Your task to perform on an android device: change the clock display to digital Image 0: 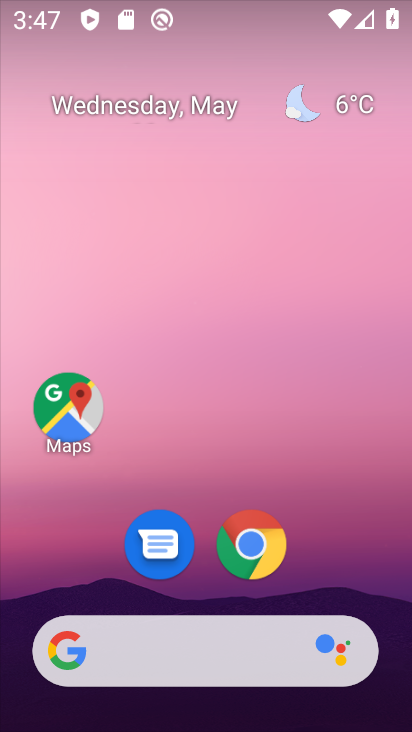
Step 0: drag from (189, 607) to (305, 134)
Your task to perform on an android device: change the clock display to digital Image 1: 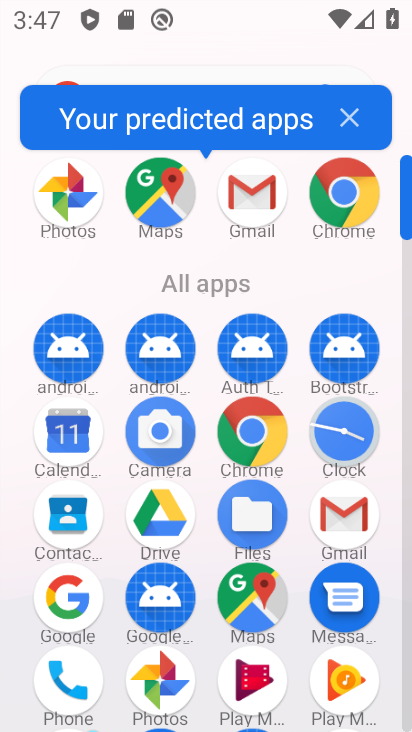
Step 1: click (342, 442)
Your task to perform on an android device: change the clock display to digital Image 2: 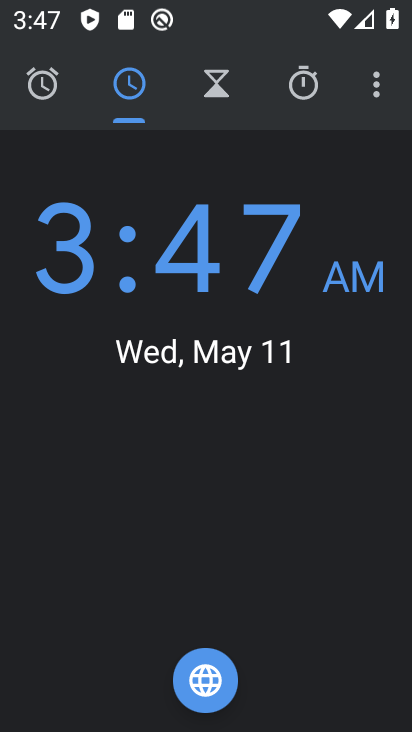
Step 2: click (386, 90)
Your task to perform on an android device: change the clock display to digital Image 3: 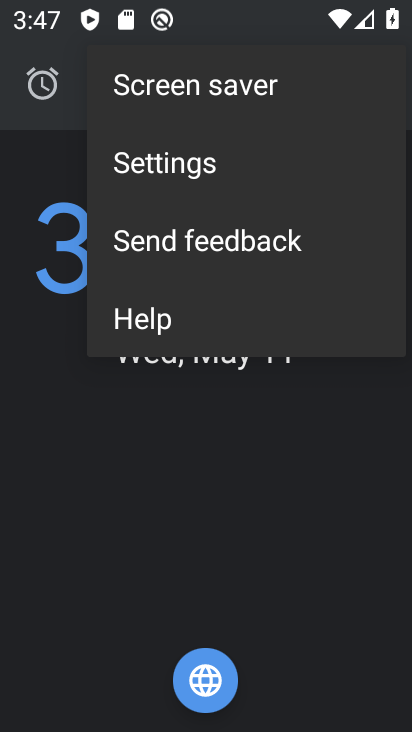
Step 3: click (284, 160)
Your task to perform on an android device: change the clock display to digital Image 4: 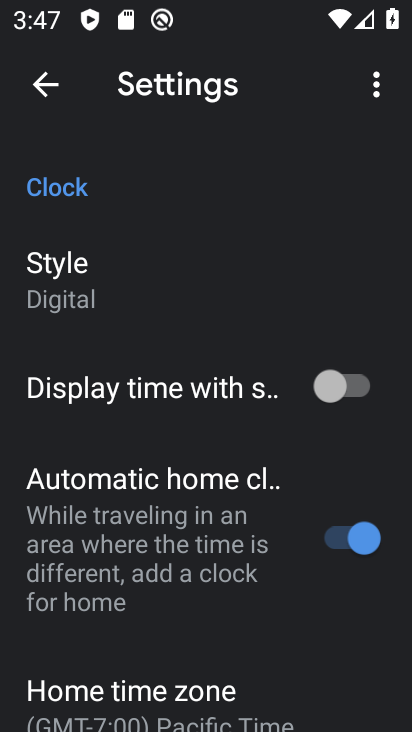
Step 4: task complete